Your task to perform on an android device: turn on location history Image 0: 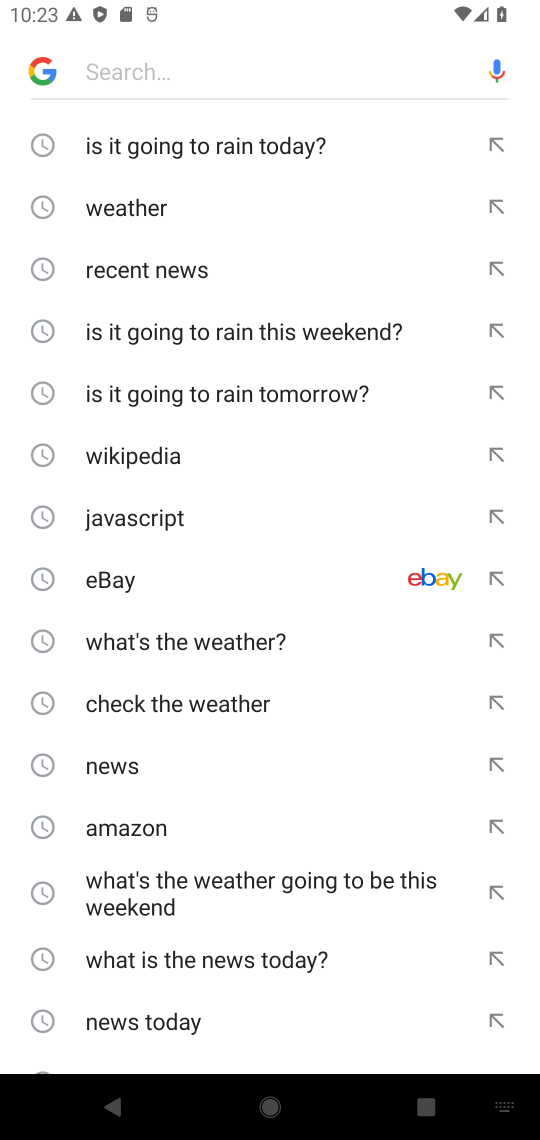
Step 0: press home button
Your task to perform on an android device: turn on location history Image 1: 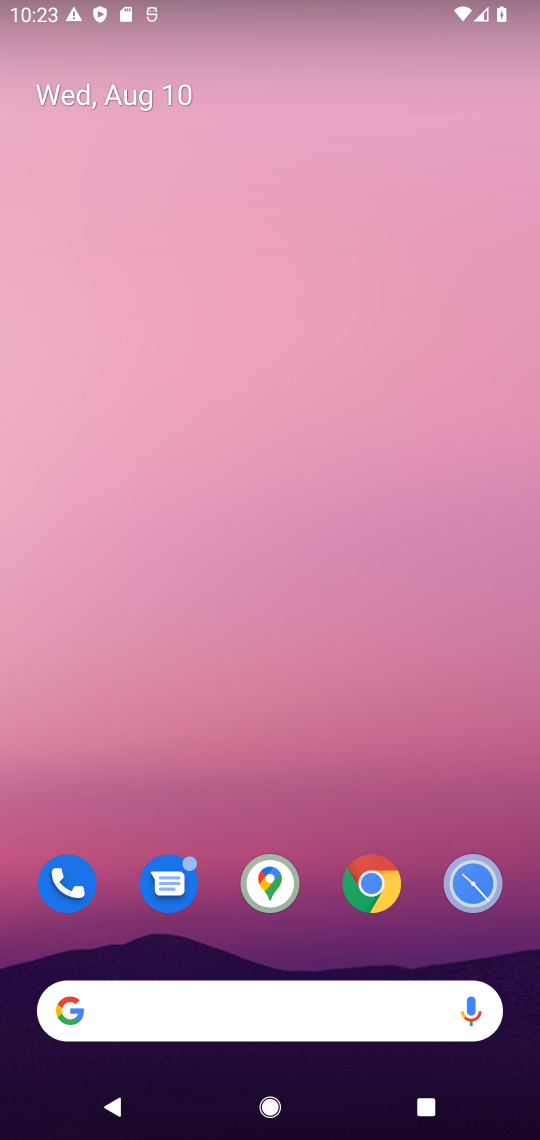
Step 1: drag from (317, 932) to (250, 0)
Your task to perform on an android device: turn on location history Image 2: 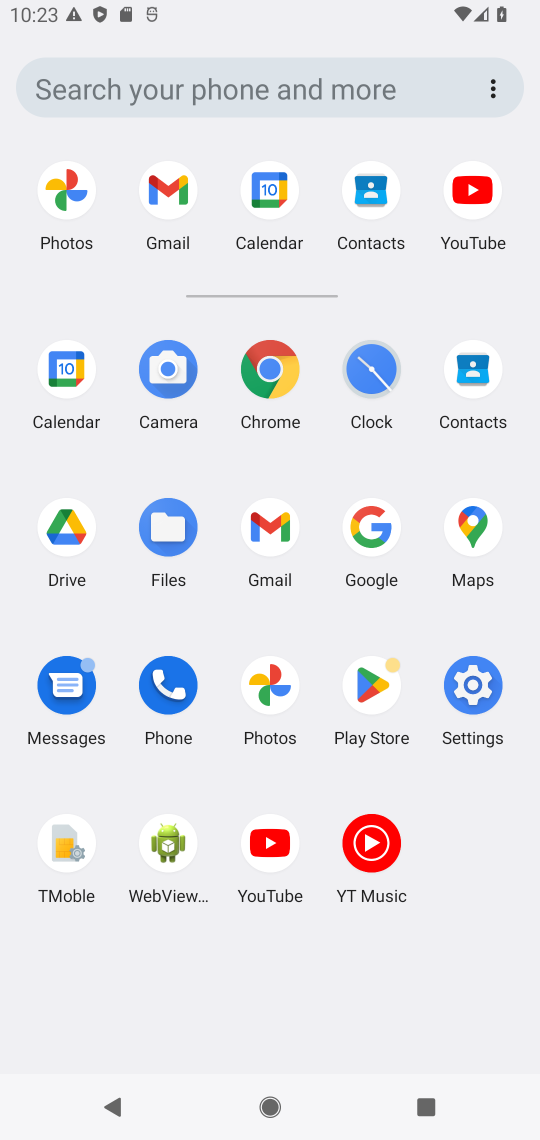
Step 2: click (475, 527)
Your task to perform on an android device: turn on location history Image 3: 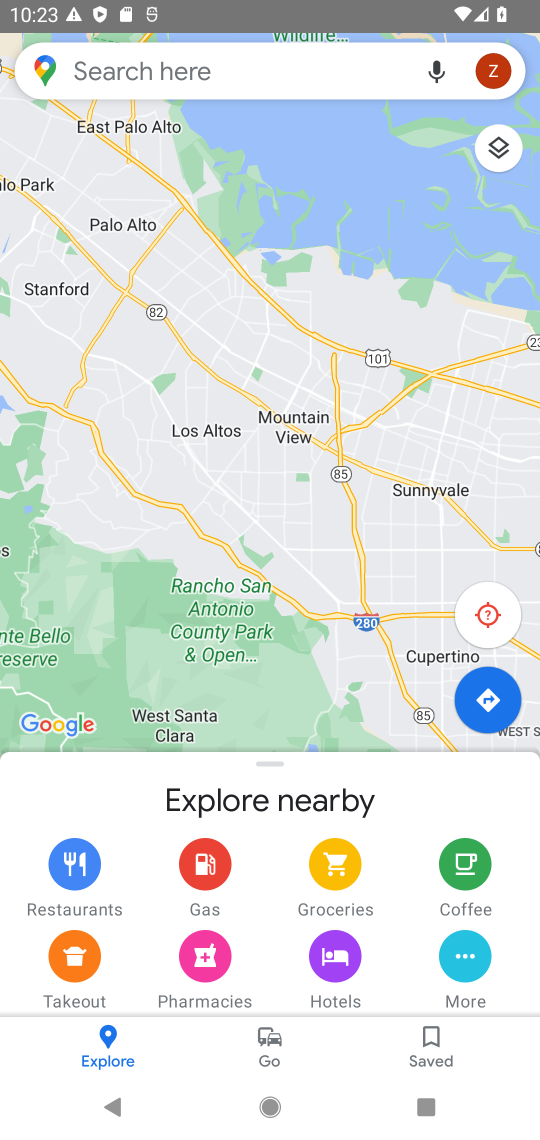
Step 3: click (501, 69)
Your task to perform on an android device: turn on location history Image 4: 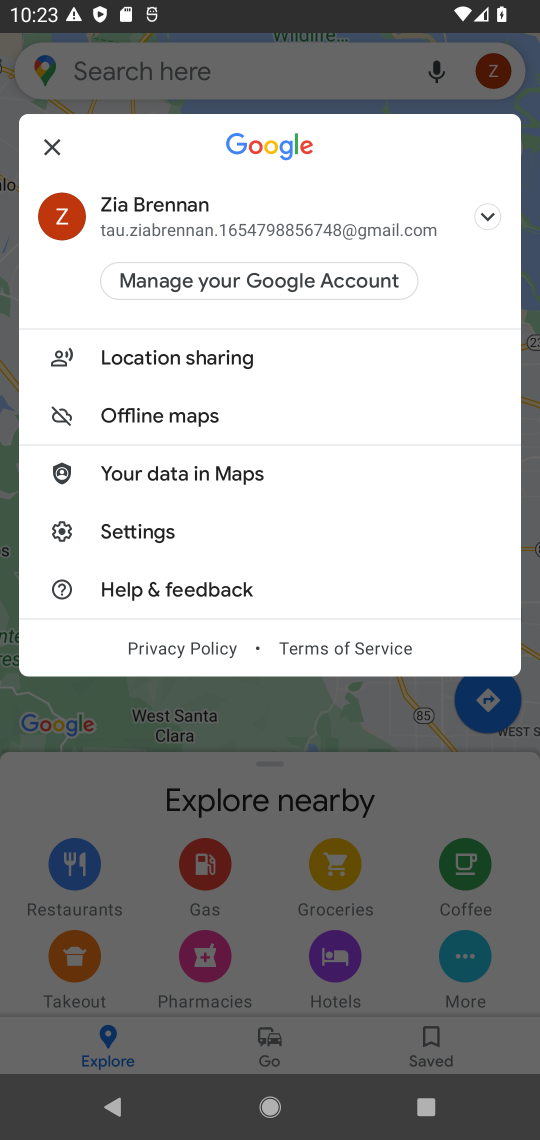
Step 4: click (183, 466)
Your task to perform on an android device: turn on location history Image 5: 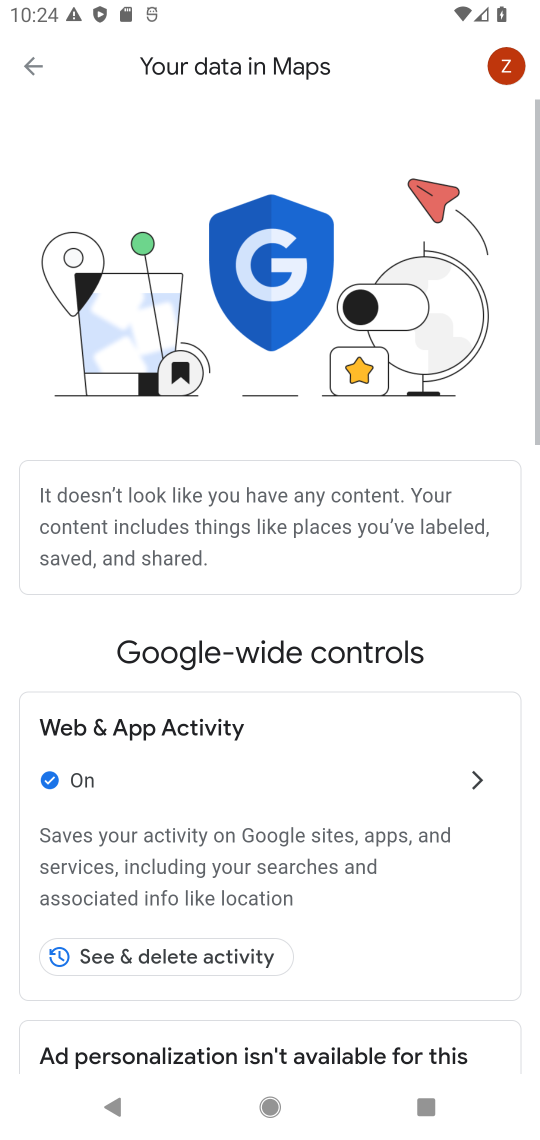
Step 5: click (26, 53)
Your task to perform on an android device: turn on location history Image 6: 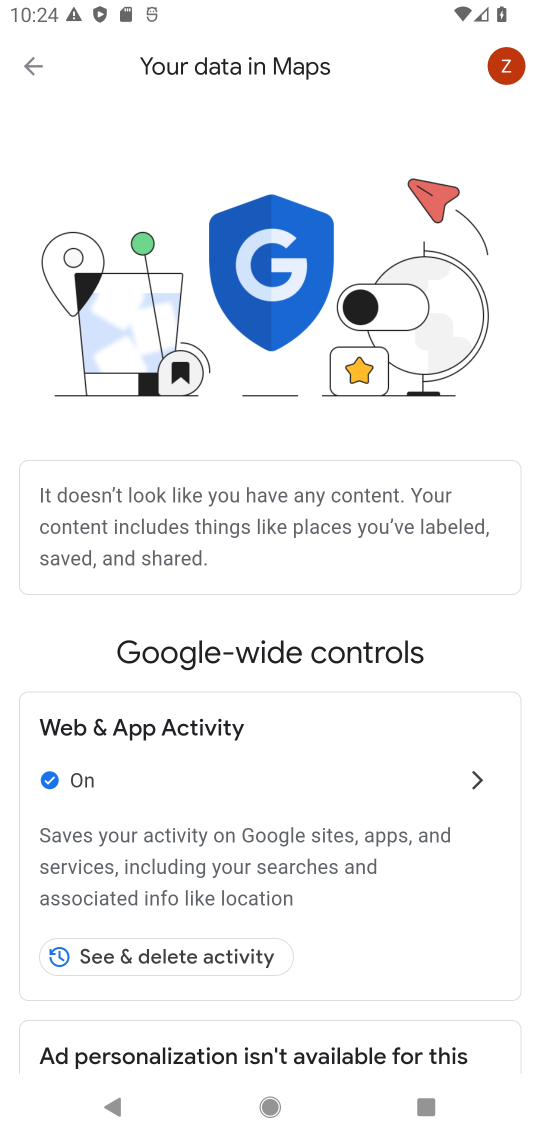
Step 6: click (30, 61)
Your task to perform on an android device: turn on location history Image 7: 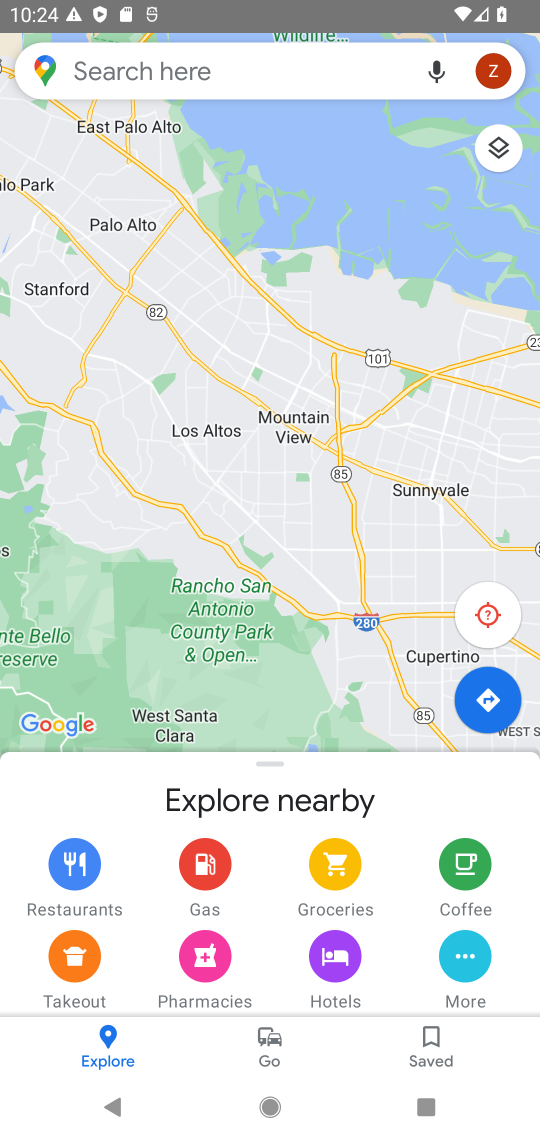
Step 7: click (99, 1039)
Your task to perform on an android device: turn on location history Image 8: 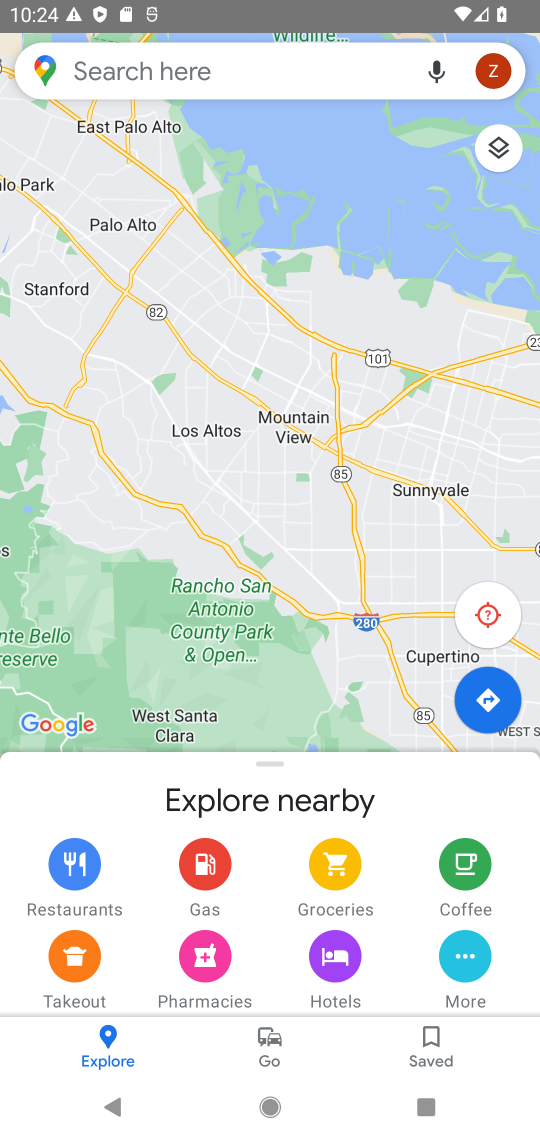
Step 8: drag from (218, 913) to (385, 358)
Your task to perform on an android device: turn on location history Image 9: 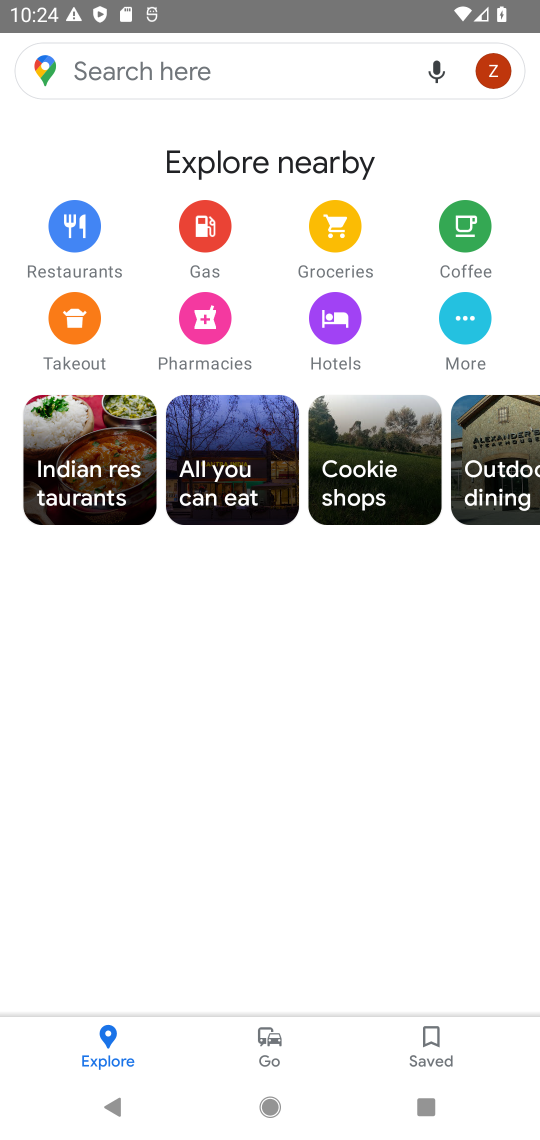
Step 9: click (450, 312)
Your task to perform on an android device: turn on location history Image 10: 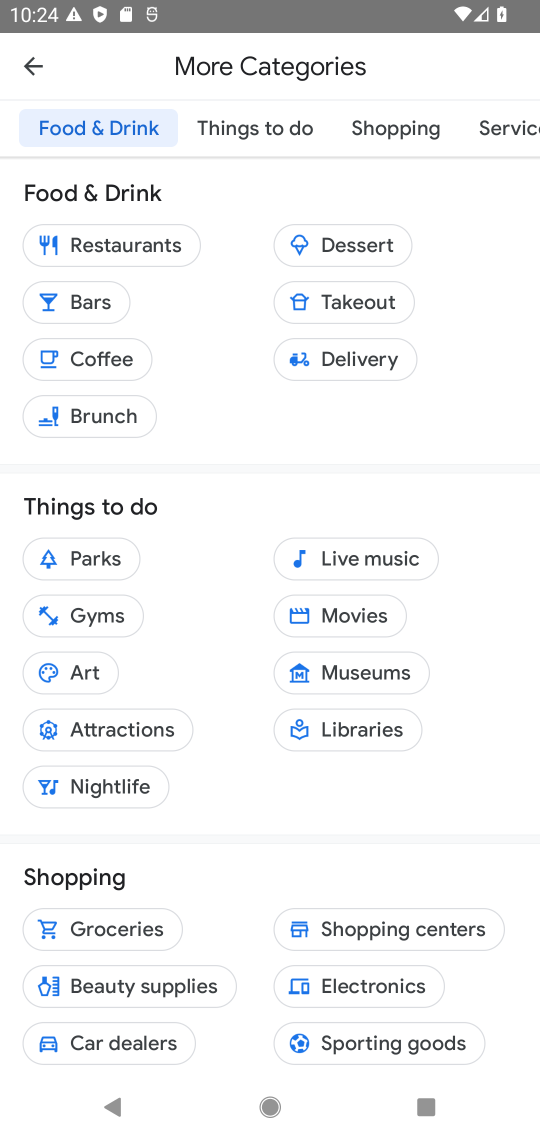
Step 10: click (21, 61)
Your task to perform on an android device: turn on location history Image 11: 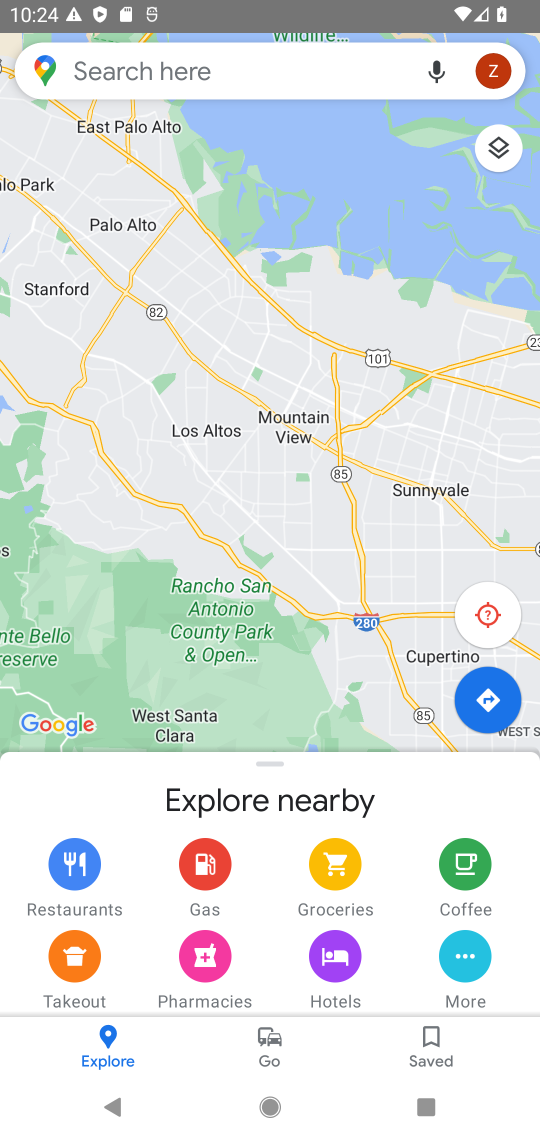
Step 11: click (491, 71)
Your task to perform on an android device: turn on location history Image 12: 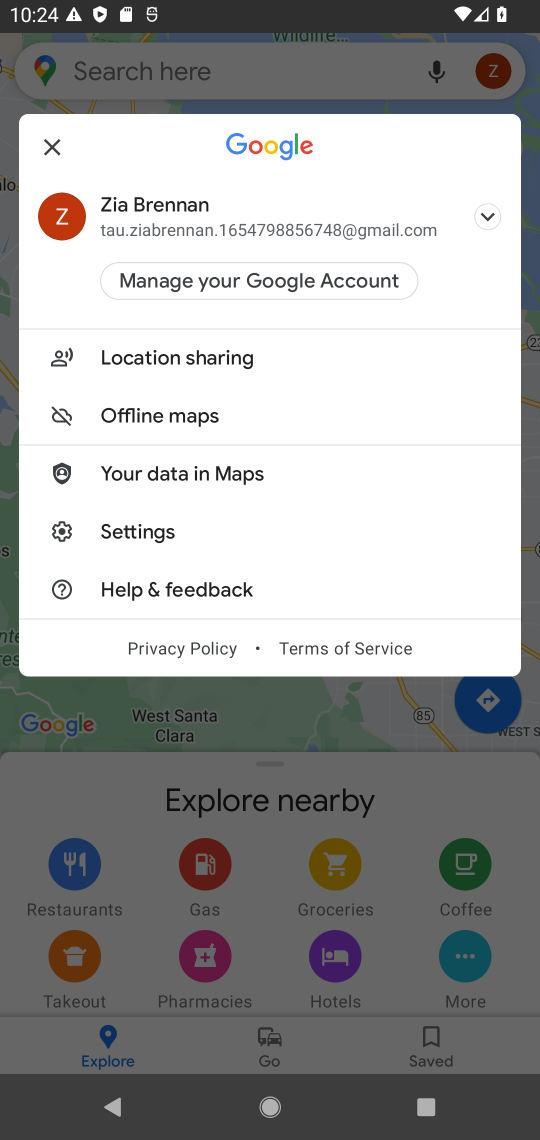
Step 12: click (207, 477)
Your task to perform on an android device: turn on location history Image 13: 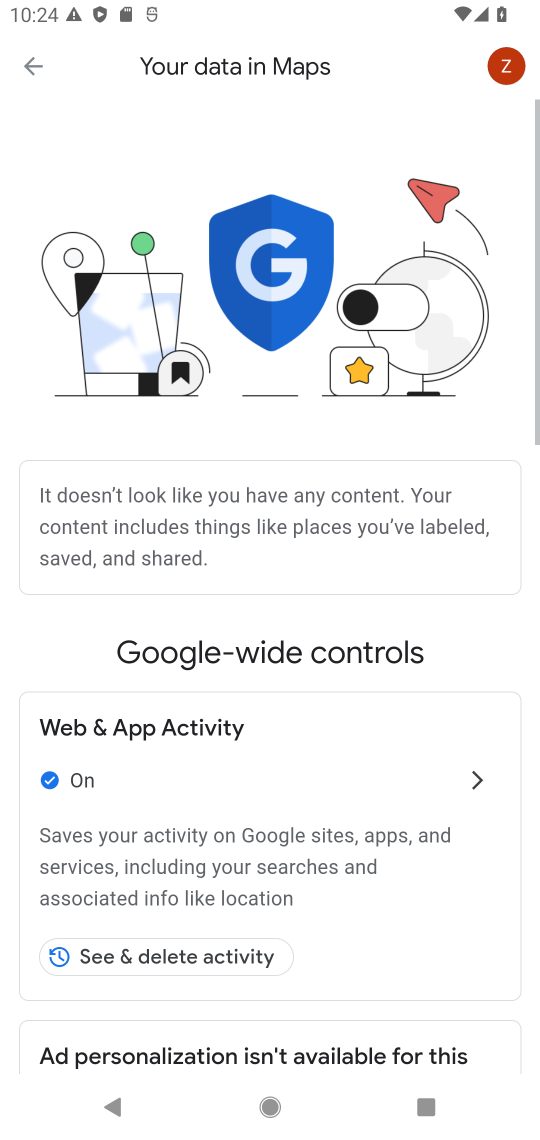
Step 13: task complete